Your task to perform on an android device: Go to display settings Image 0: 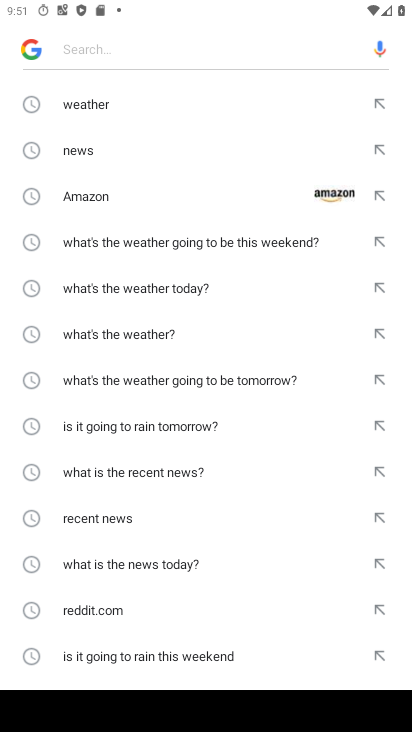
Step 0: press home button
Your task to perform on an android device: Go to display settings Image 1: 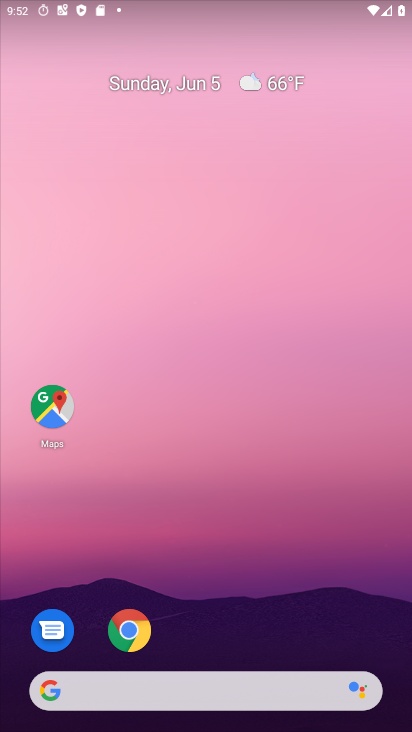
Step 1: drag from (211, 731) to (247, 1)
Your task to perform on an android device: Go to display settings Image 2: 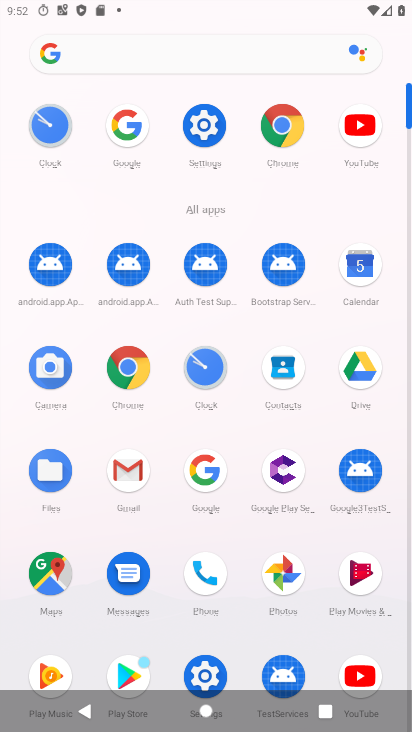
Step 2: click (203, 123)
Your task to perform on an android device: Go to display settings Image 3: 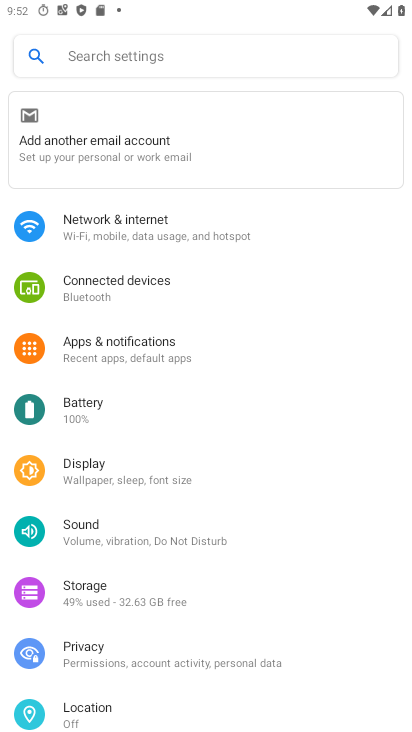
Step 3: click (92, 469)
Your task to perform on an android device: Go to display settings Image 4: 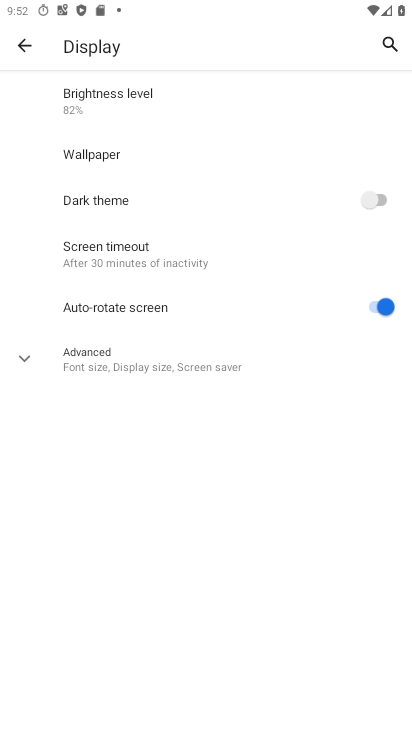
Step 4: task complete